Your task to perform on an android device: turn off data saver in the chrome app Image 0: 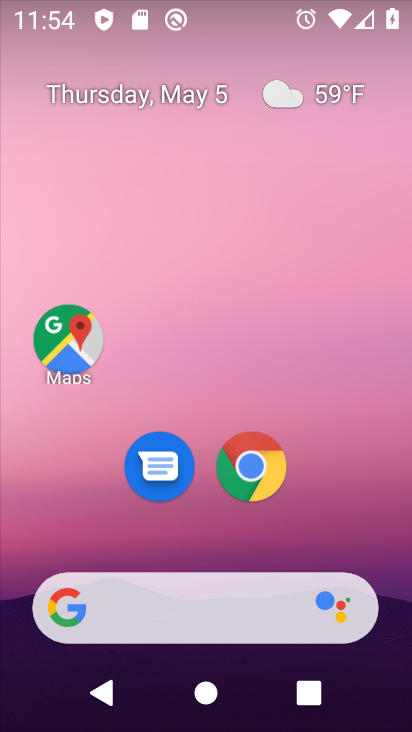
Step 0: drag from (183, 556) to (210, 148)
Your task to perform on an android device: turn off data saver in the chrome app Image 1: 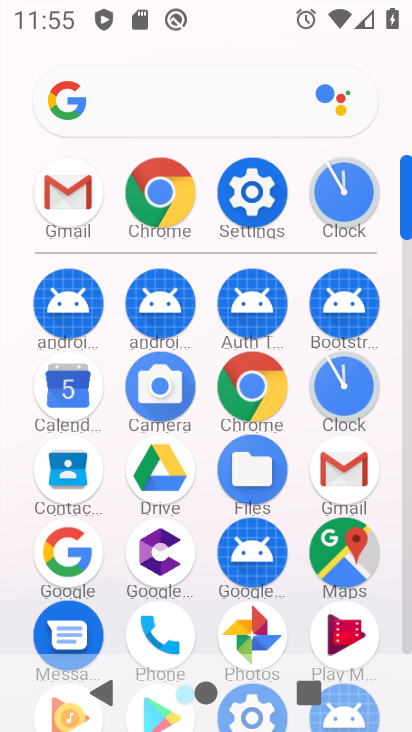
Step 1: click (247, 392)
Your task to perform on an android device: turn off data saver in the chrome app Image 2: 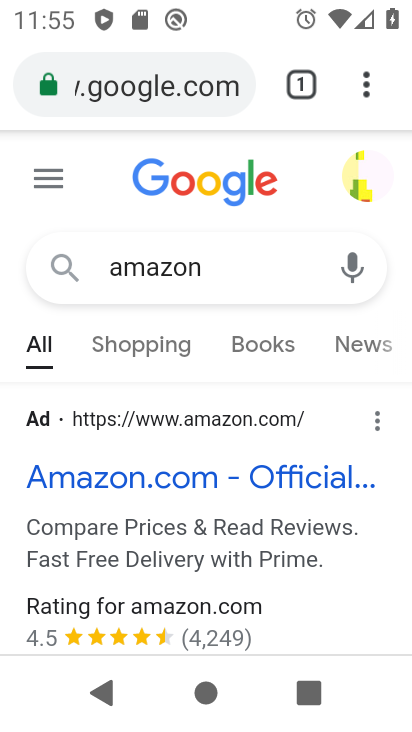
Step 2: click (368, 81)
Your task to perform on an android device: turn off data saver in the chrome app Image 3: 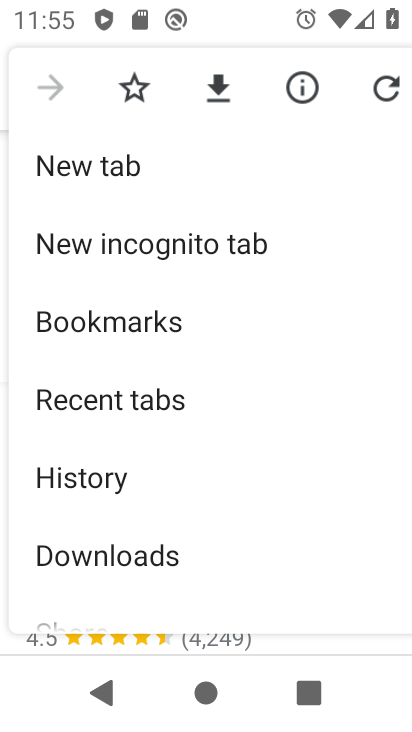
Step 3: drag from (159, 574) to (180, 196)
Your task to perform on an android device: turn off data saver in the chrome app Image 4: 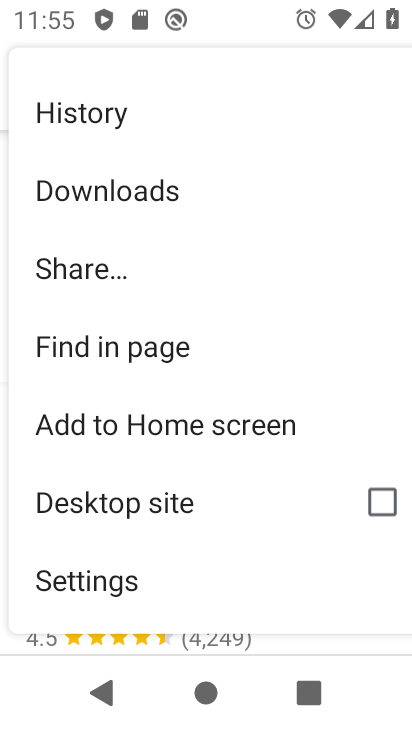
Step 4: drag from (142, 443) to (154, 235)
Your task to perform on an android device: turn off data saver in the chrome app Image 5: 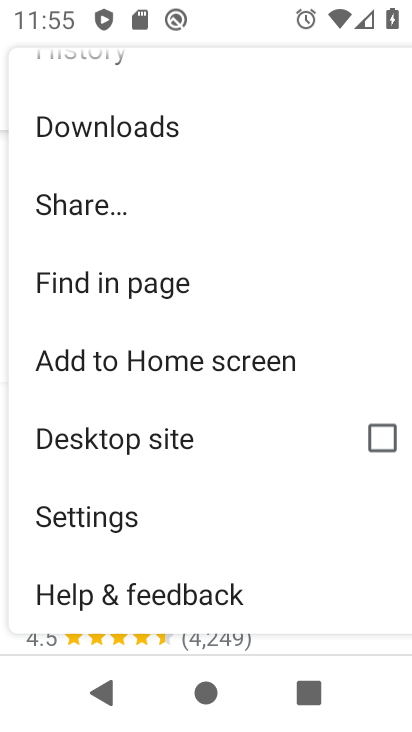
Step 5: click (91, 512)
Your task to perform on an android device: turn off data saver in the chrome app Image 6: 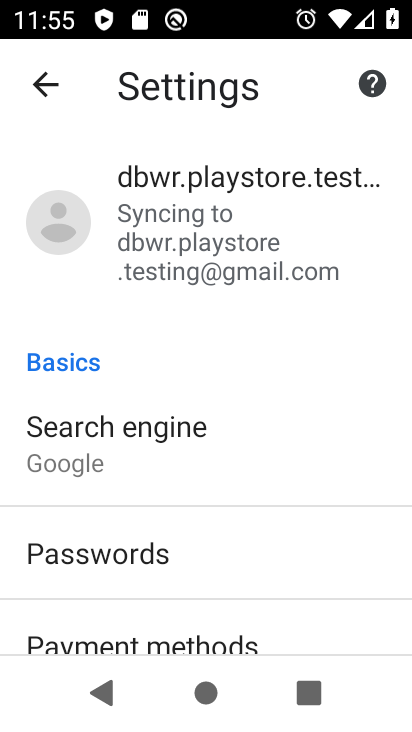
Step 6: drag from (65, 602) to (120, 246)
Your task to perform on an android device: turn off data saver in the chrome app Image 7: 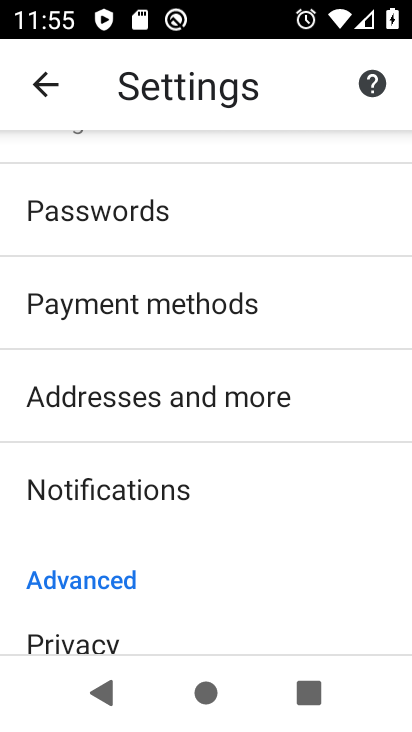
Step 7: drag from (98, 579) to (116, 248)
Your task to perform on an android device: turn off data saver in the chrome app Image 8: 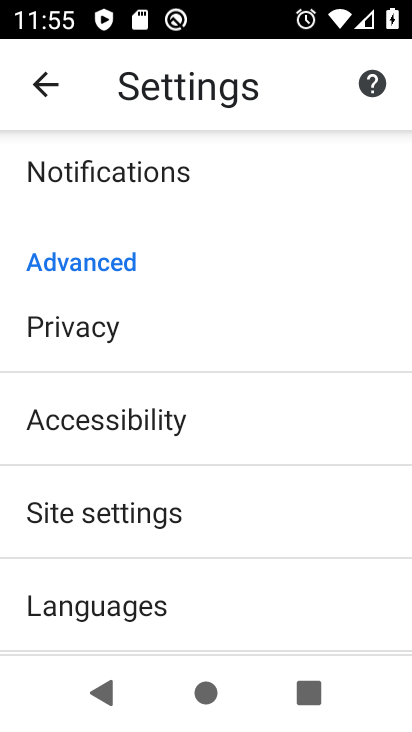
Step 8: drag from (120, 555) to (151, 311)
Your task to perform on an android device: turn off data saver in the chrome app Image 9: 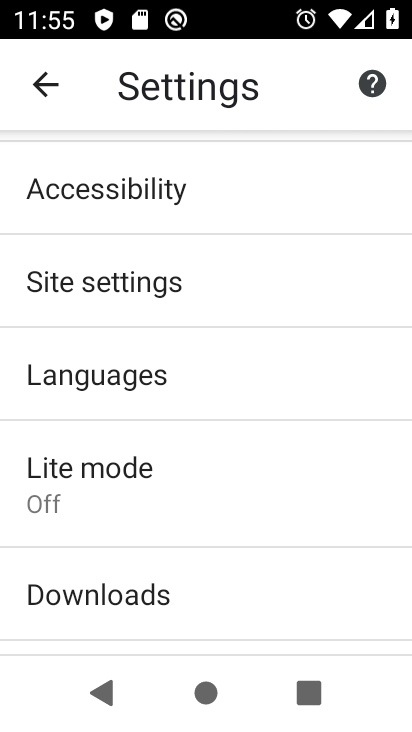
Step 9: click (79, 473)
Your task to perform on an android device: turn off data saver in the chrome app Image 10: 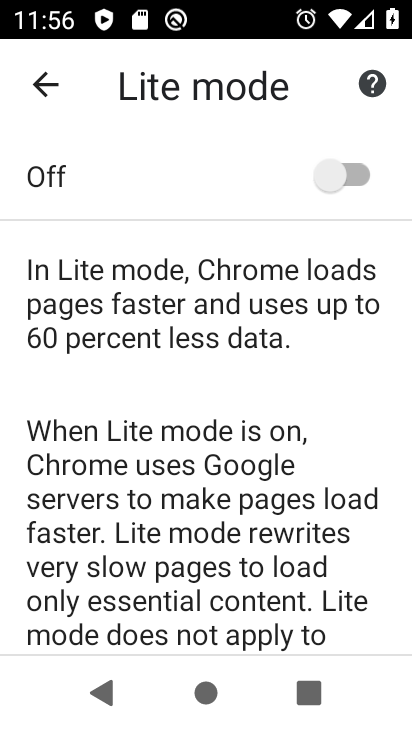
Step 10: task complete